Your task to perform on an android device: turn on airplane mode Image 0: 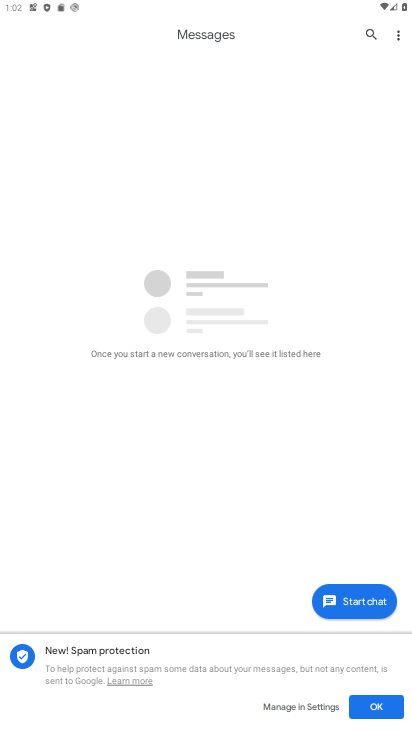
Step 0: press home button
Your task to perform on an android device: turn on airplane mode Image 1: 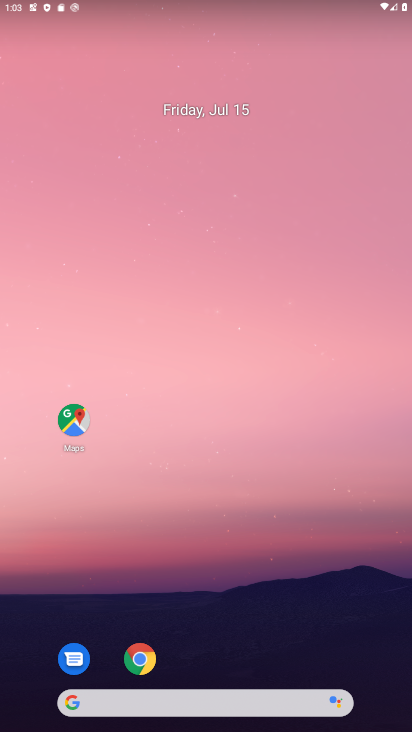
Step 1: drag from (253, 639) to (225, 226)
Your task to perform on an android device: turn on airplane mode Image 2: 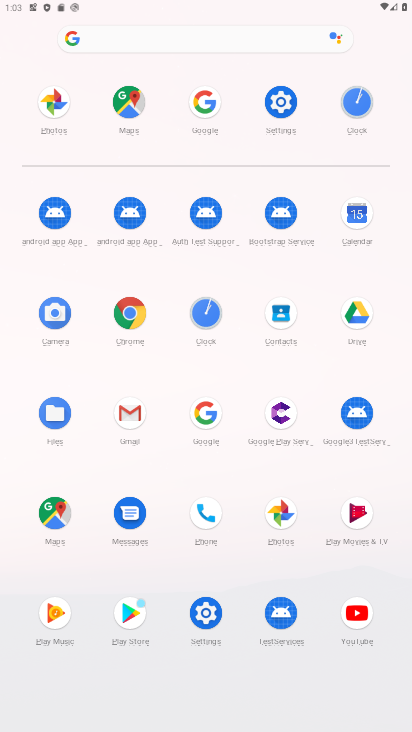
Step 2: click (267, 105)
Your task to perform on an android device: turn on airplane mode Image 3: 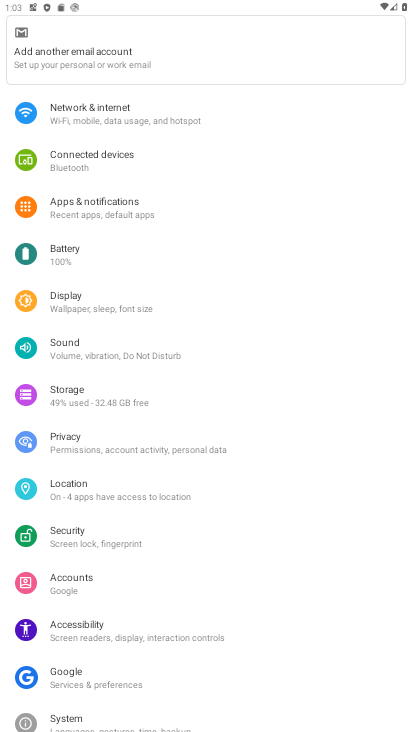
Step 3: click (138, 122)
Your task to perform on an android device: turn on airplane mode Image 4: 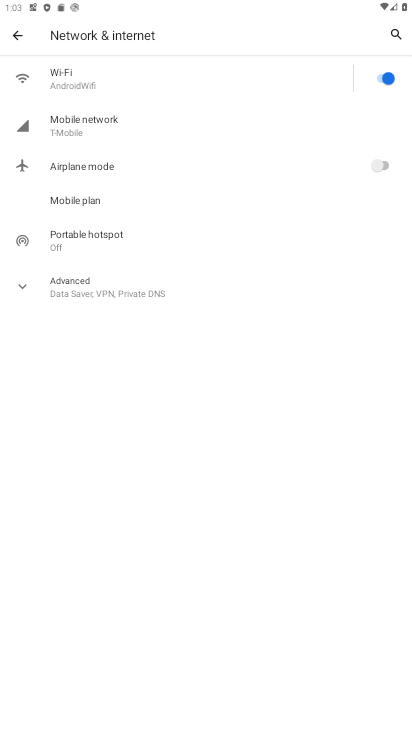
Step 4: click (383, 168)
Your task to perform on an android device: turn on airplane mode Image 5: 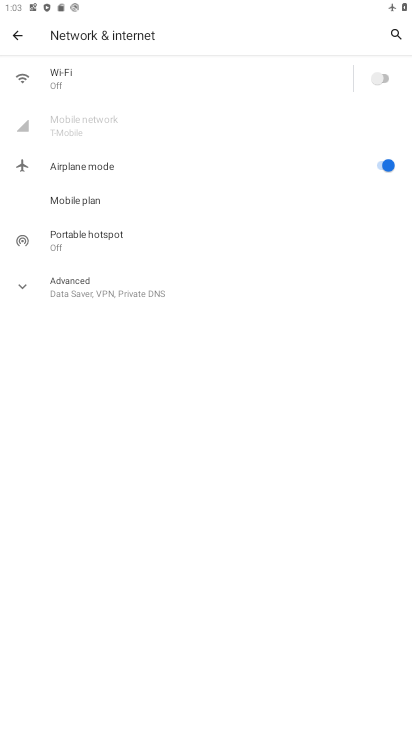
Step 5: task complete